Your task to perform on an android device: turn off wifi Image 0: 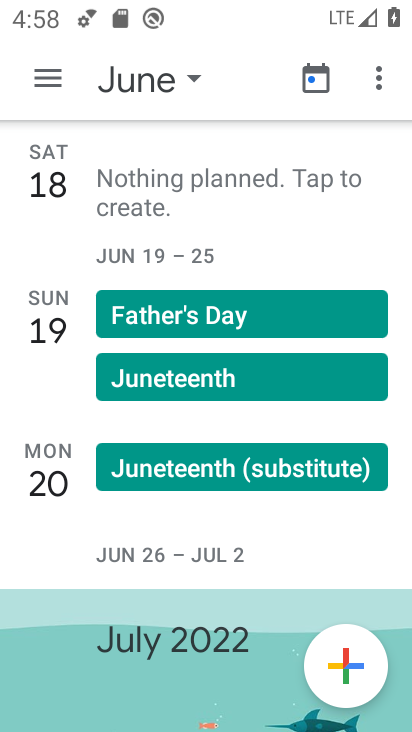
Step 0: press home button
Your task to perform on an android device: turn off wifi Image 1: 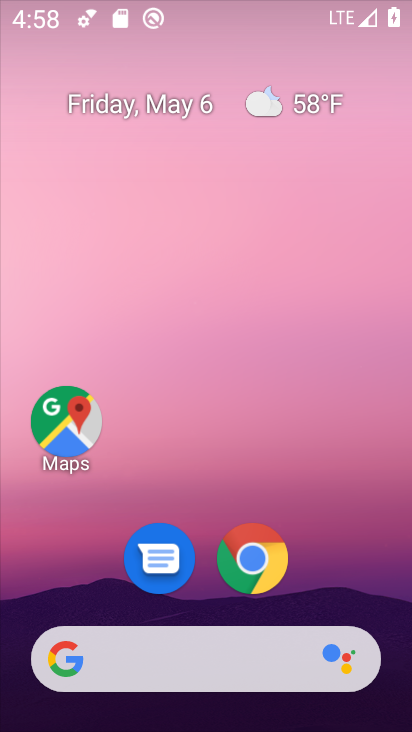
Step 1: drag from (314, 635) to (280, 52)
Your task to perform on an android device: turn off wifi Image 2: 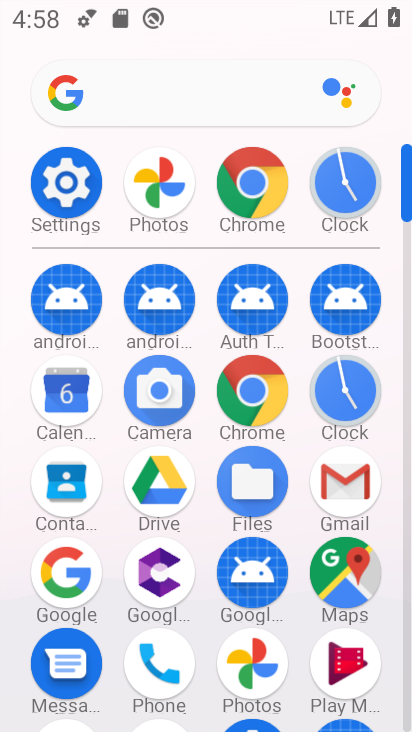
Step 2: click (70, 181)
Your task to perform on an android device: turn off wifi Image 3: 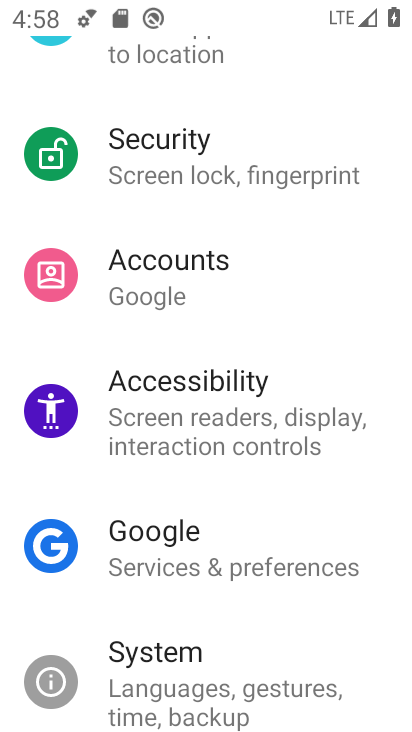
Step 3: drag from (247, 169) to (295, 717)
Your task to perform on an android device: turn off wifi Image 4: 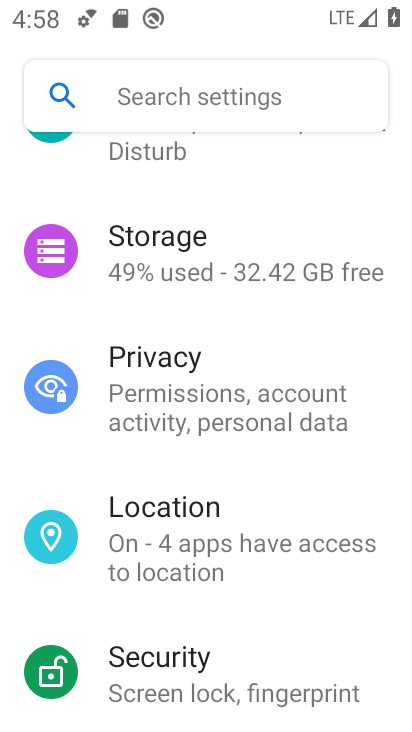
Step 4: drag from (219, 211) to (264, 728)
Your task to perform on an android device: turn off wifi Image 5: 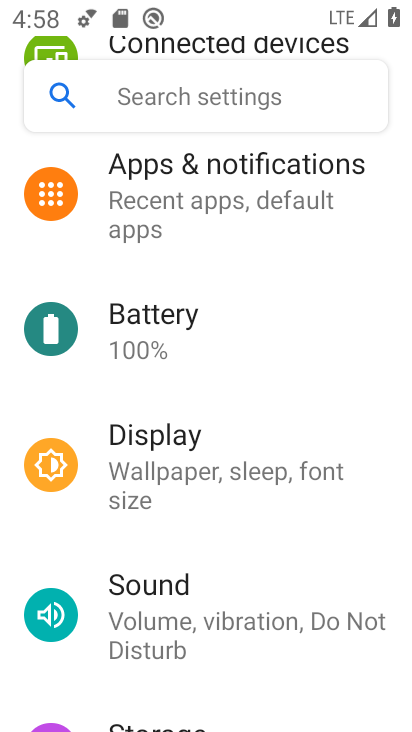
Step 5: drag from (227, 247) to (283, 708)
Your task to perform on an android device: turn off wifi Image 6: 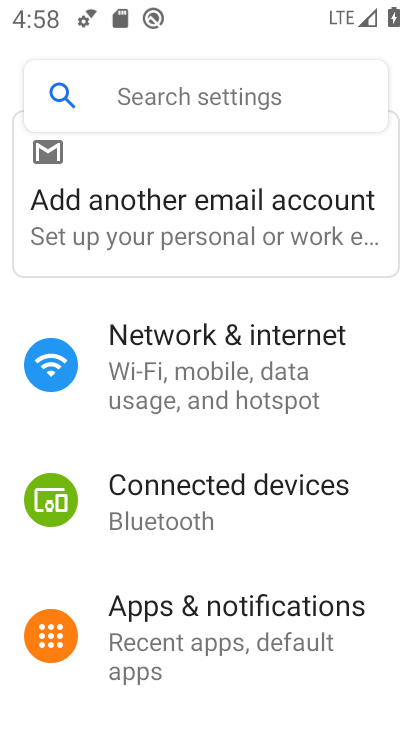
Step 6: click (282, 374)
Your task to perform on an android device: turn off wifi Image 7: 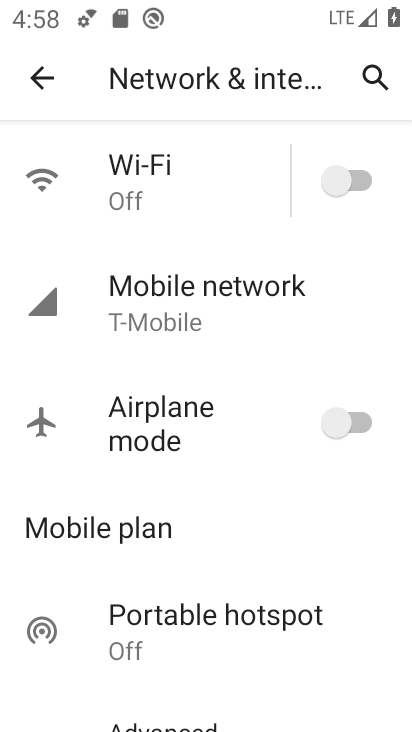
Step 7: task complete